Your task to perform on an android device: Open calendar and show me the first week of next month Image 0: 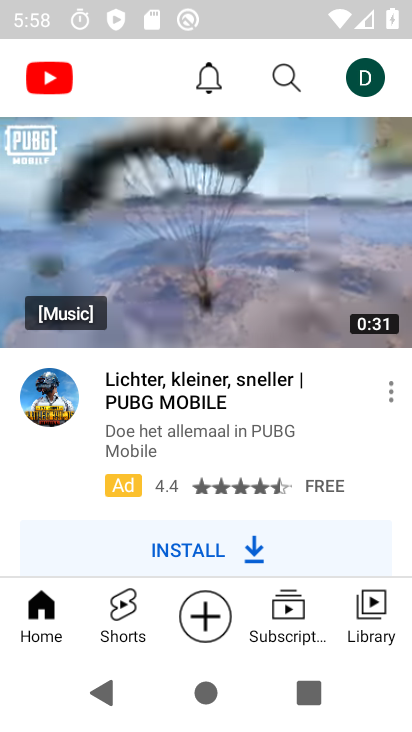
Step 0: press home button
Your task to perform on an android device: Open calendar and show me the first week of next month Image 1: 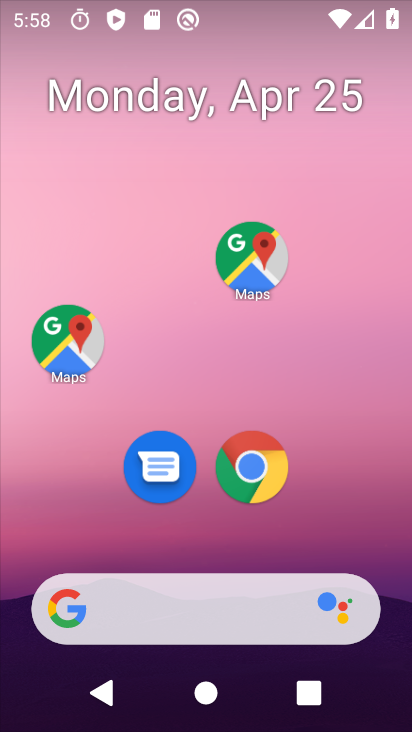
Step 1: drag from (248, 603) to (263, 0)
Your task to perform on an android device: Open calendar and show me the first week of next month Image 2: 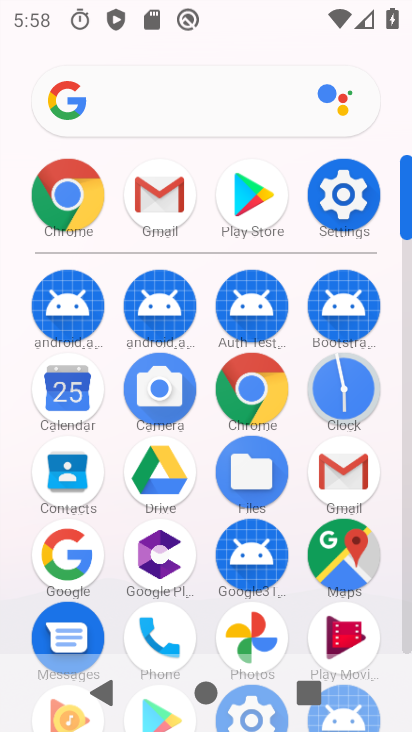
Step 2: click (83, 394)
Your task to perform on an android device: Open calendar and show me the first week of next month Image 3: 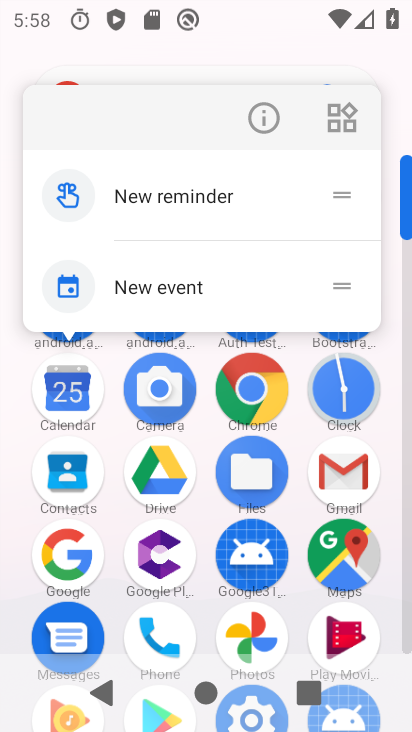
Step 3: click (83, 394)
Your task to perform on an android device: Open calendar and show me the first week of next month Image 4: 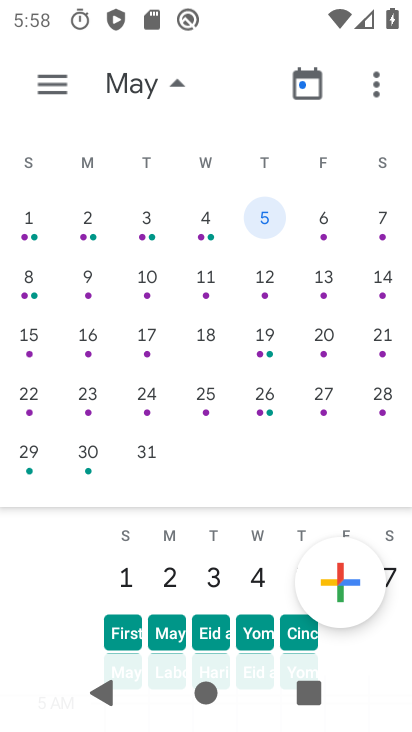
Step 4: click (53, 73)
Your task to perform on an android device: Open calendar and show me the first week of next month Image 5: 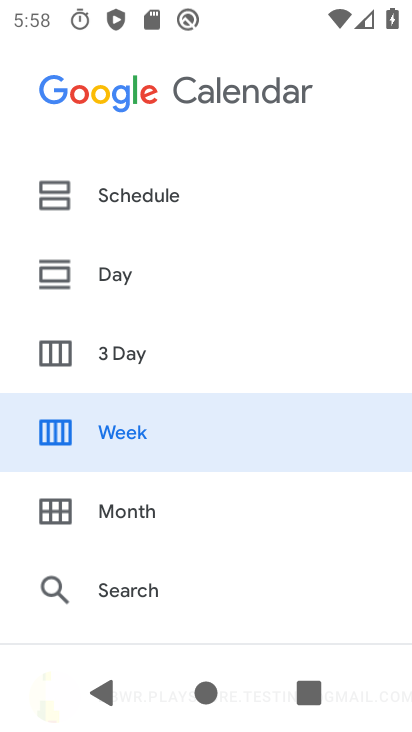
Step 5: click (144, 439)
Your task to perform on an android device: Open calendar and show me the first week of next month Image 6: 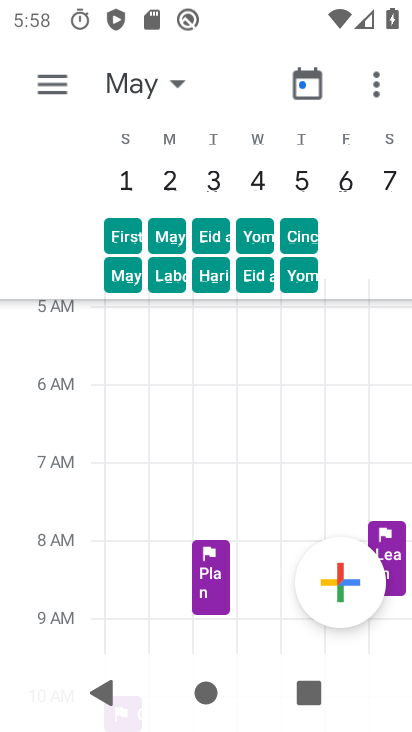
Step 6: task complete